Your task to perform on an android device: Open privacy settings Image 0: 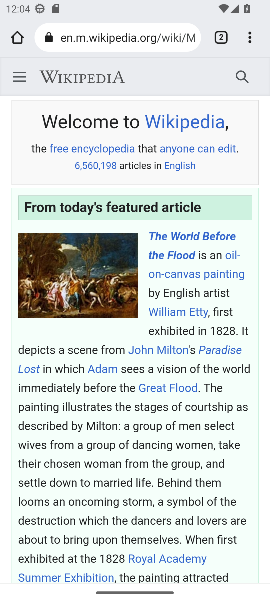
Step 0: press home button
Your task to perform on an android device: Open privacy settings Image 1: 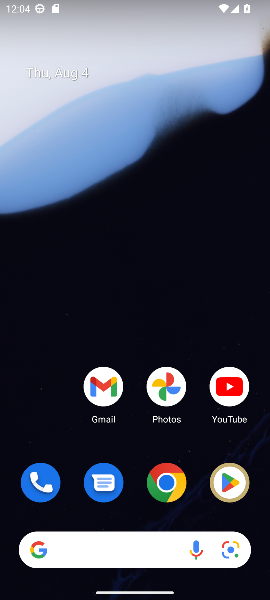
Step 1: drag from (129, 471) to (158, 185)
Your task to perform on an android device: Open privacy settings Image 2: 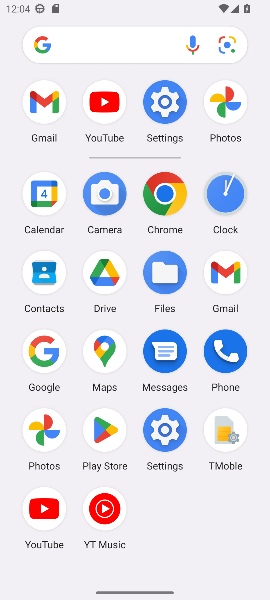
Step 2: click (168, 120)
Your task to perform on an android device: Open privacy settings Image 3: 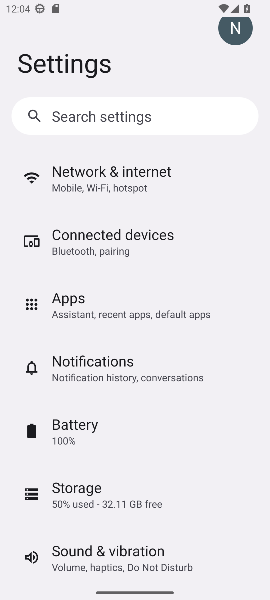
Step 3: drag from (90, 491) to (107, 233)
Your task to perform on an android device: Open privacy settings Image 4: 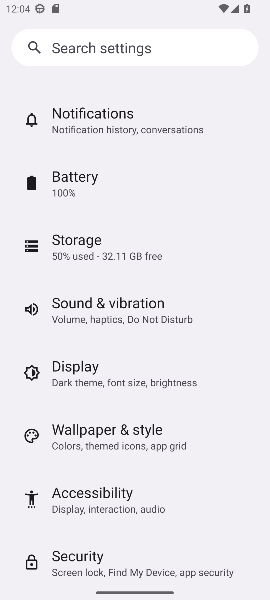
Step 4: drag from (90, 527) to (118, 293)
Your task to perform on an android device: Open privacy settings Image 5: 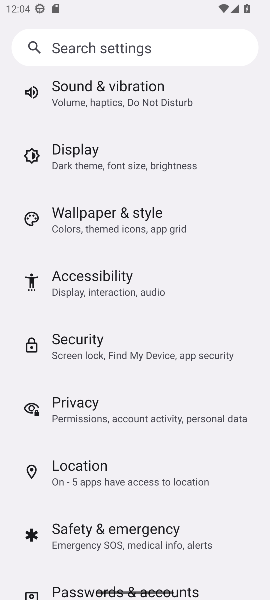
Step 5: click (94, 402)
Your task to perform on an android device: Open privacy settings Image 6: 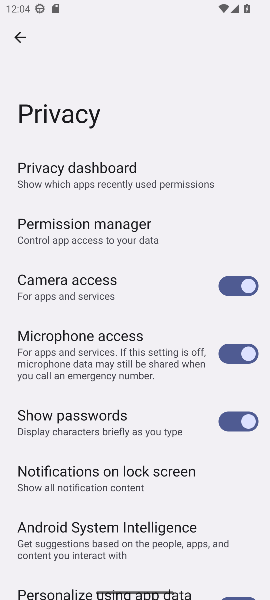
Step 6: task complete